Your task to perform on an android device: Go to accessibility settings Image 0: 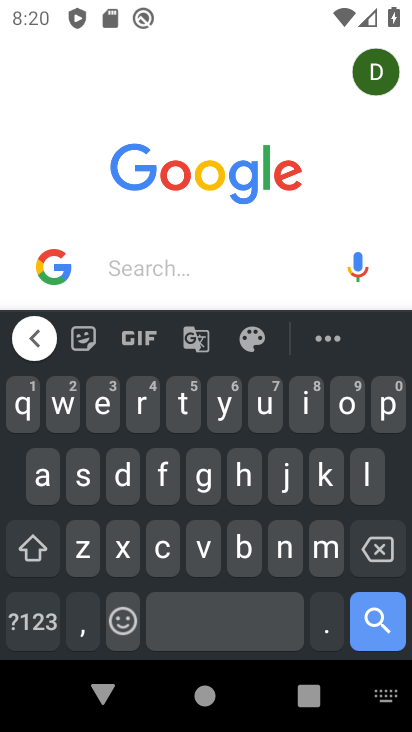
Step 0: press home button
Your task to perform on an android device: Go to accessibility settings Image 1: 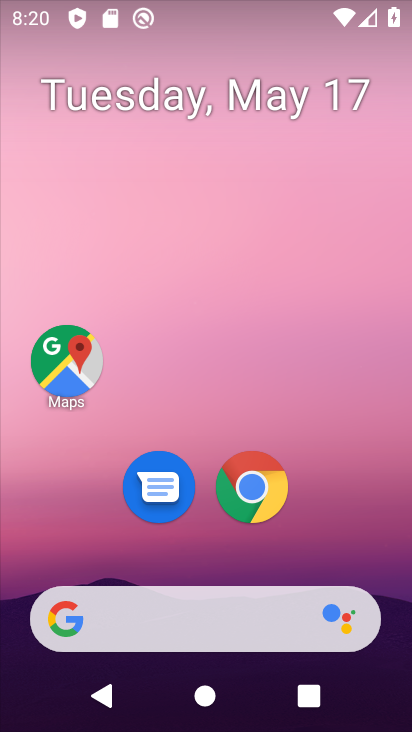
Step 1: drag from (243, 671) to (176, 243)
Your task to perform on an android device: Go to accessibility settings Image 2: 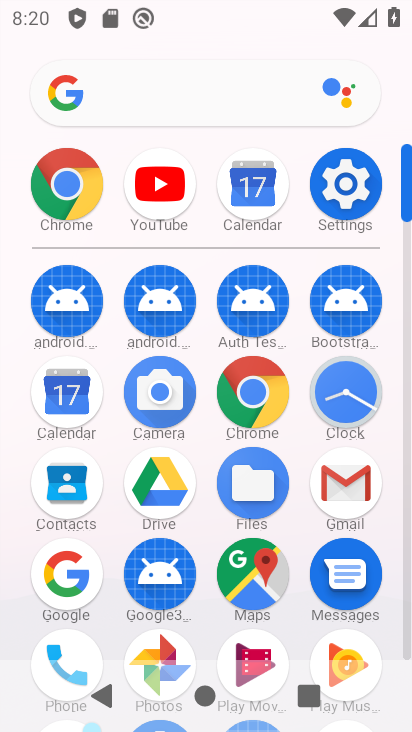
Step 2: click (354, 221)
Your task to perform on an android device: Go to accessibility settings Image 3: 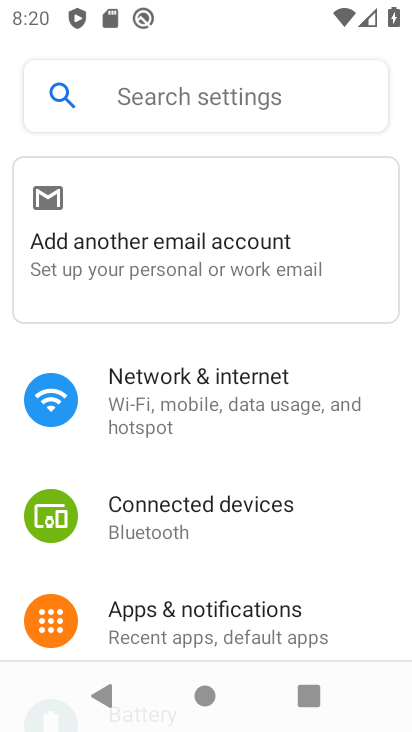
Step 3: click (175, 100)
Your task to perform on an android device: Go to accessibility settings Image 4: 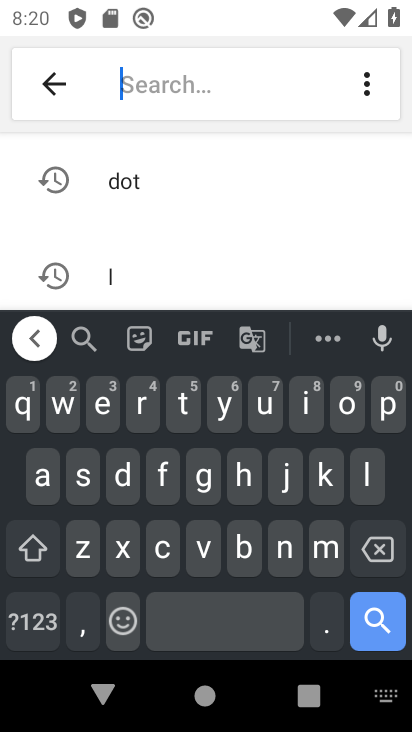
Step 4: click (33, 487)
Your task to perform on an android device: Go to accessibility settings Image 5: 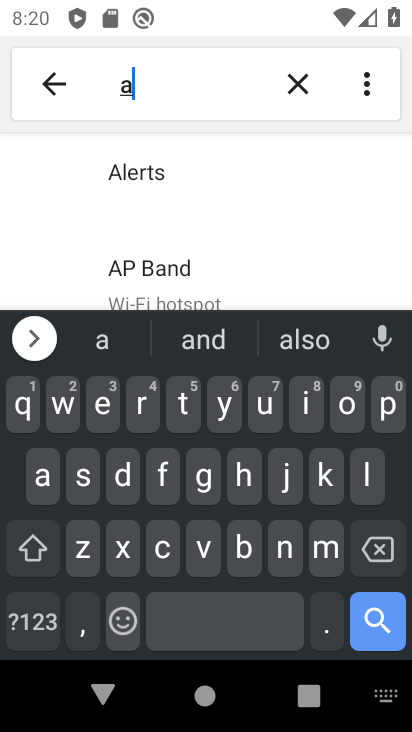
Step 5: click (160, 550)
Your task to perform on an android device: Go to accessibility settings Image 6: 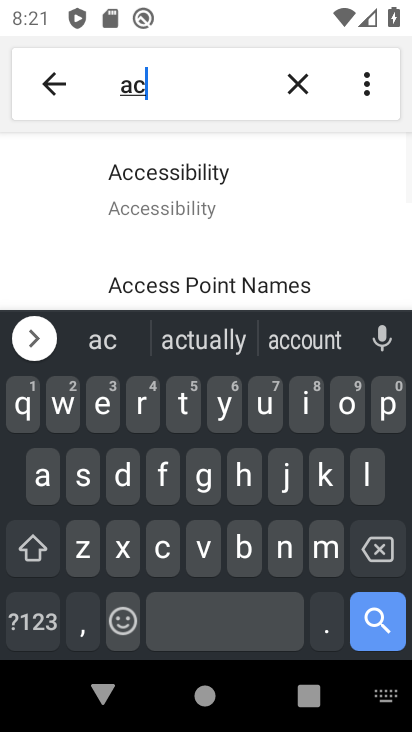
Step 6: click (167, 199)
Your task to perform on an android device: Go to accessibility settings Image 7: 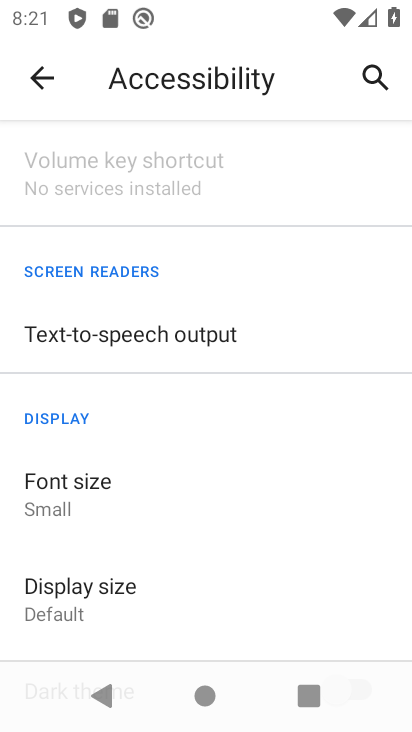
Step 7: task complete